Your task to perform on an android device: Set the phone to "Do not disturb". Image 0: 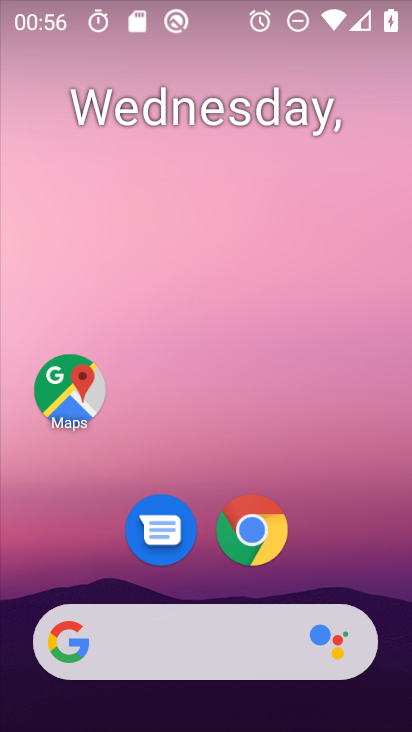
Step 0: drag from (305, 670) to (287, 34)
Your task to perform on an android device: Set the phone to "Do not disturb". Image 1: 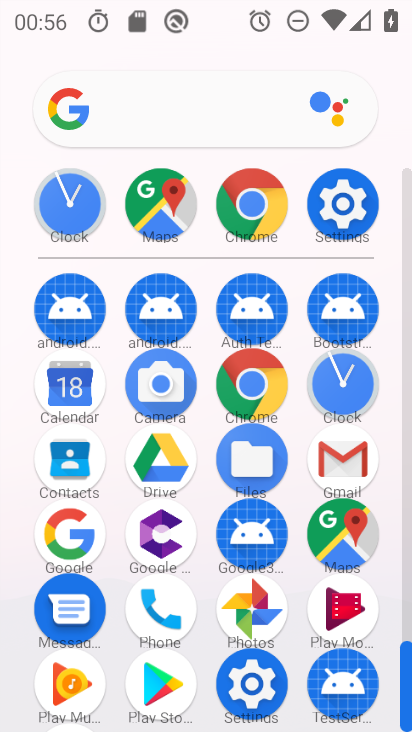
Step 1: click (342, 213)
Your task to perform on an android device: Set the phone to "Do not disturb". Image 2: 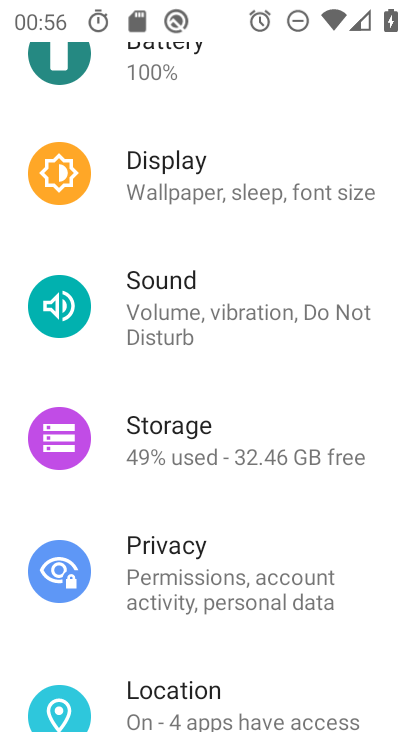
Step 2: click (213, 311)
Your task to perform on an android device: Set the phone to "Do not disturb". Image 3: 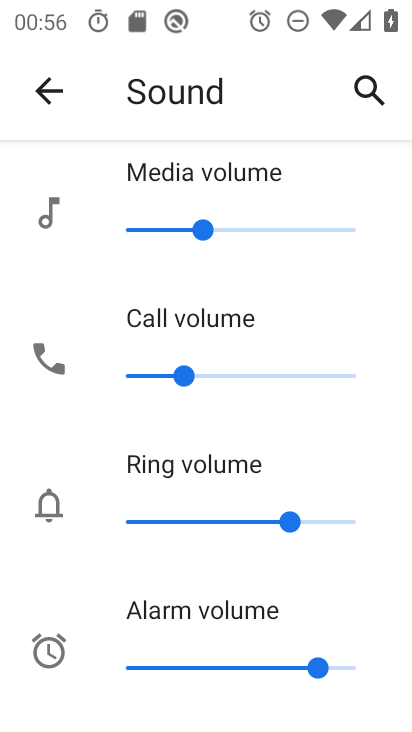
Step 3: drag from (344, 601) to (342, 220)
Your task to perform on an android device: Set the phone to "Do not disturb". Image 4: 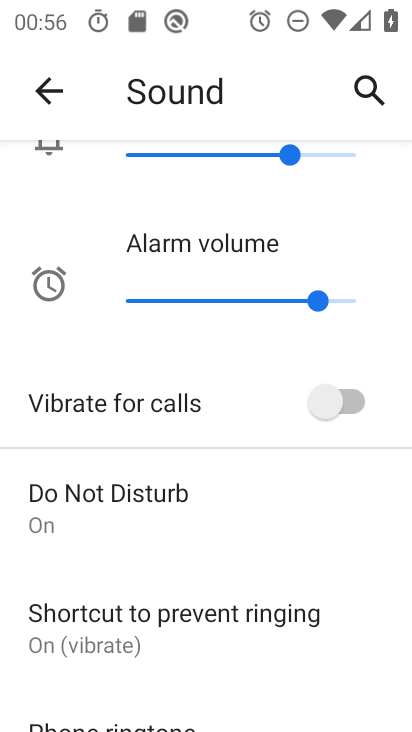
Step 4: drag from (288, 606) to (296, 368)
Your task to perform on an android device: Set the phone to "Do not disturb". Image 5: 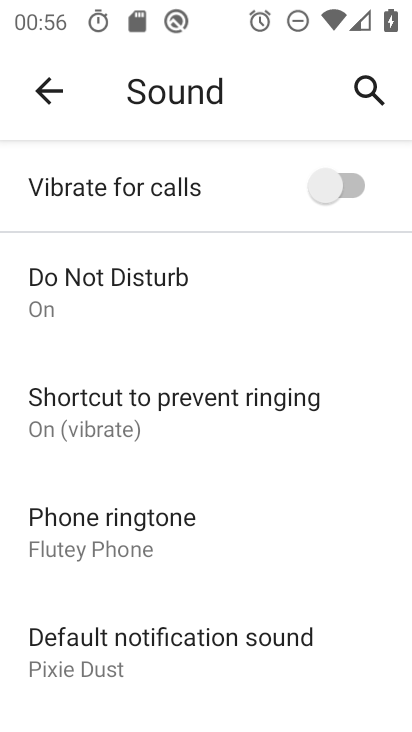
Step 5: drag from (252, 678) to (266, 260)
Your task to perform on an android device: Set the phone to "Do not disturb". Image 6: 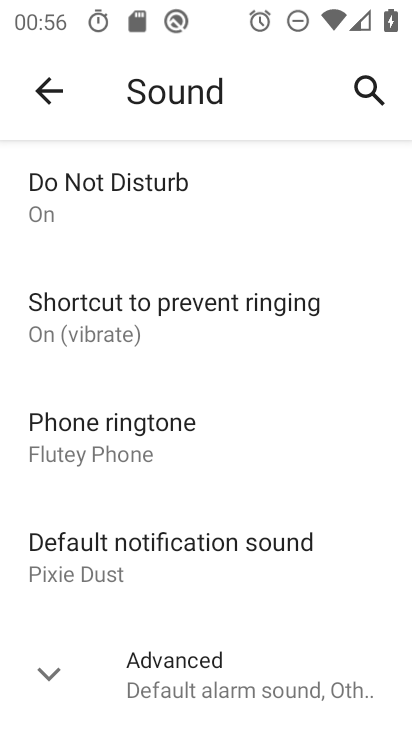
Step 6: drag from (205, 236) to (220, 584)
Your task to perform on an android device: Set the phone to "Do not disturb". Image 7: 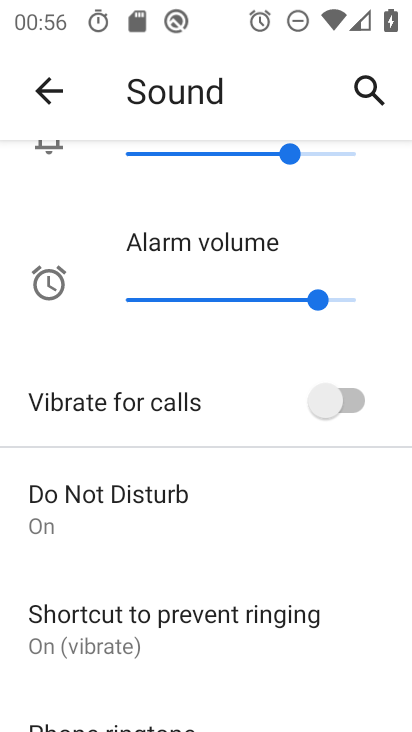
Step 7: click (161, 515)
Your task to perform on an android device: Set the phone to "Do not disturb". Image 8: 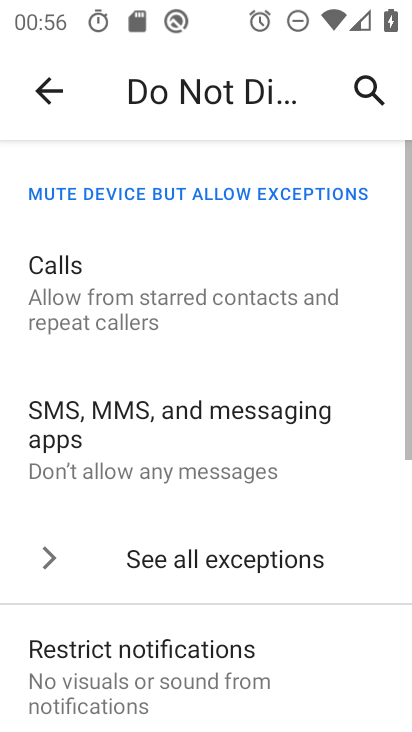
Step 8: task complete